Your task to perform on an android device: toggle data saver in the chrome app Image 0: 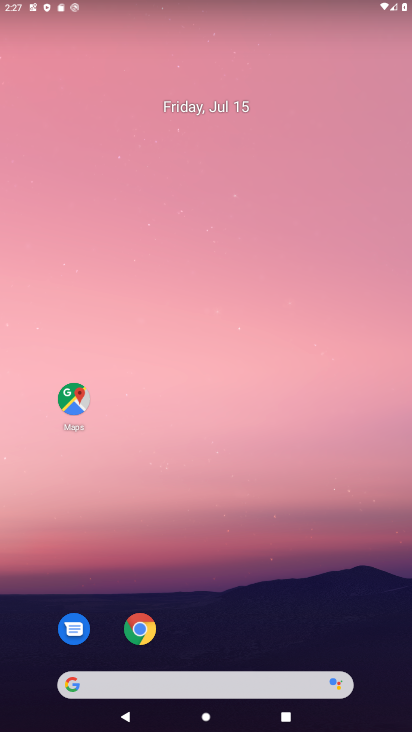
Step 0: click (144, 628)
Your task to perform on an android device: toggle data saver in the chrome app Image 1: 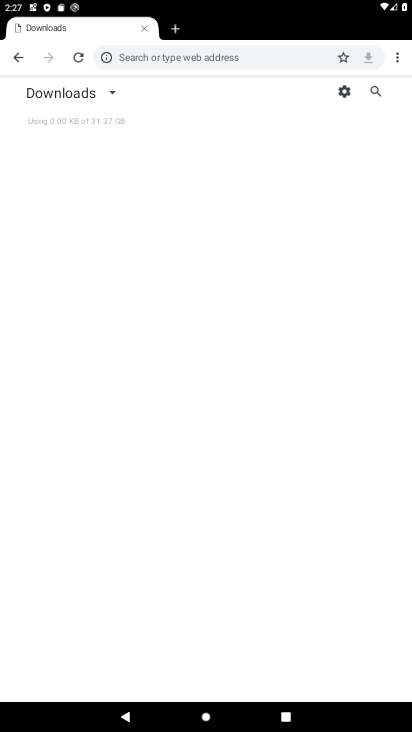
Step 1: click (393, 57)
Your task to perform on an android device: toggle data saver in the chrome app Image 2: 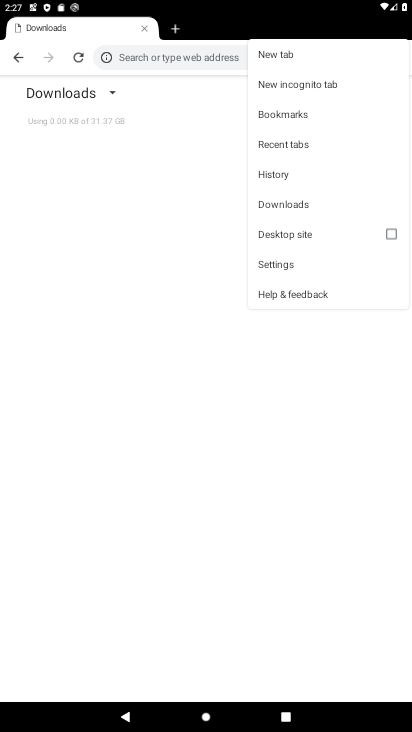
Step 2: click (264, 262)
Your task to perform on an android device: toggle data saver in the chrome app Image 3: 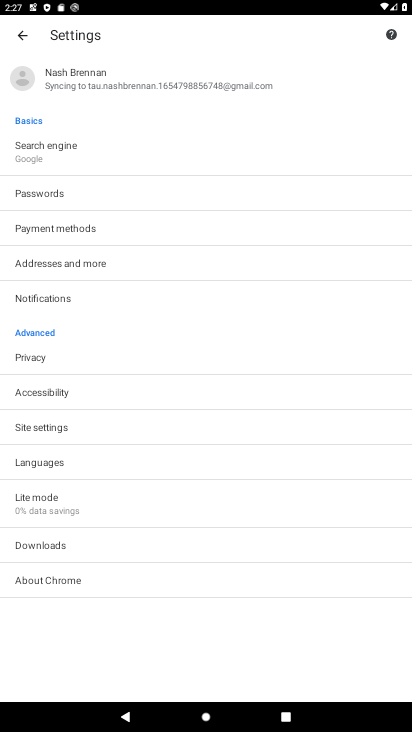
Step 3: click (48, 507)
Your task to perform on an android device: toggle data saver in the chrome app Image 4: 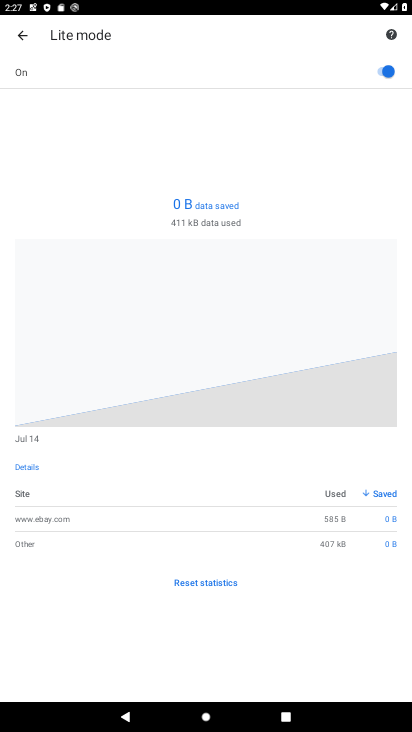
Step 4: click (383, 77)
Your task to perform on an android device: toggle data saver in the chrome app Image 5: 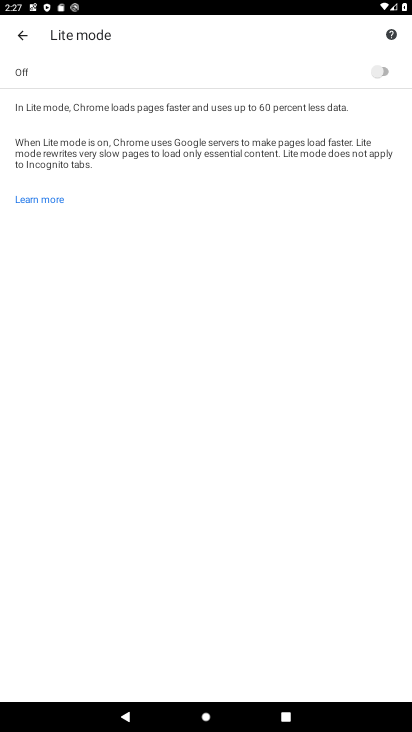
Step 5: task complete